Your task to perform on an android device: change your default location settings in chrome Image 0: 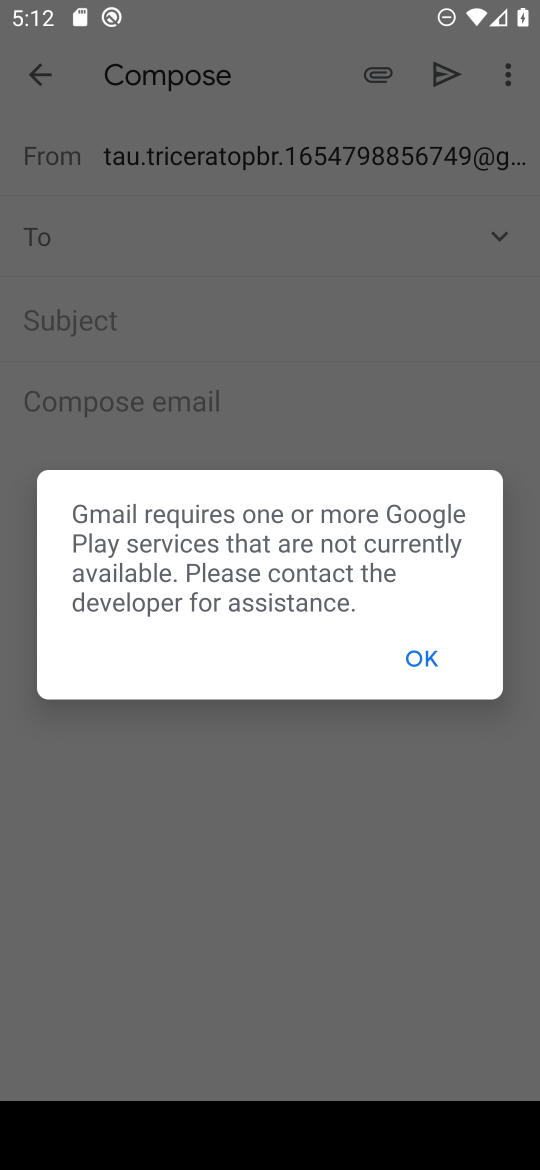
Step 0: press home button
Your task to perform on an android device: change your default location settings in chrome Image 1: 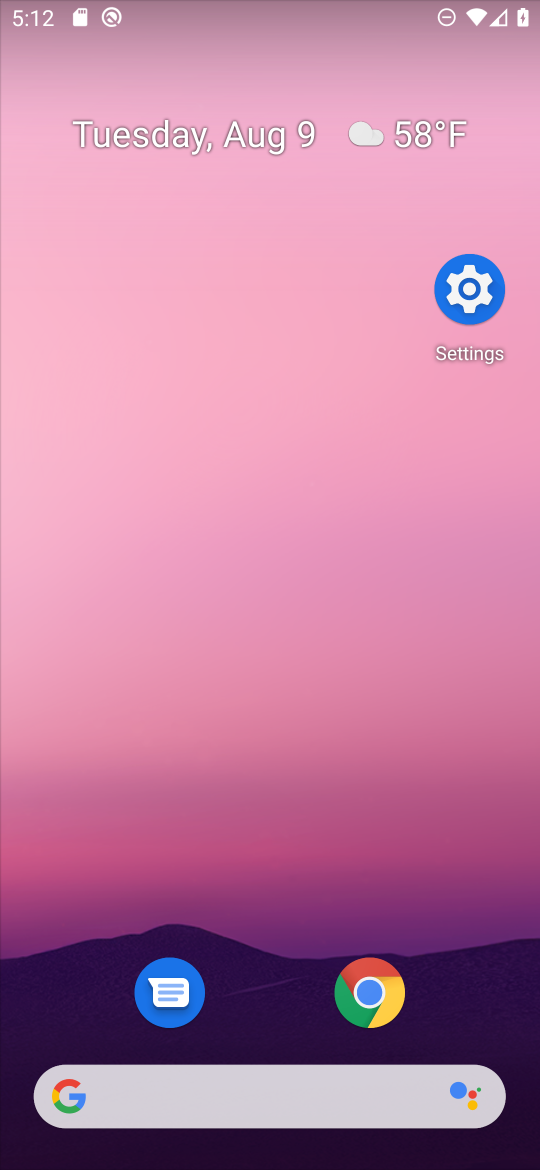
Step 1: drag from (217, 1081) to (52, 534)
Your task to perform on an android device: change your default location settings in chrome Image 2: 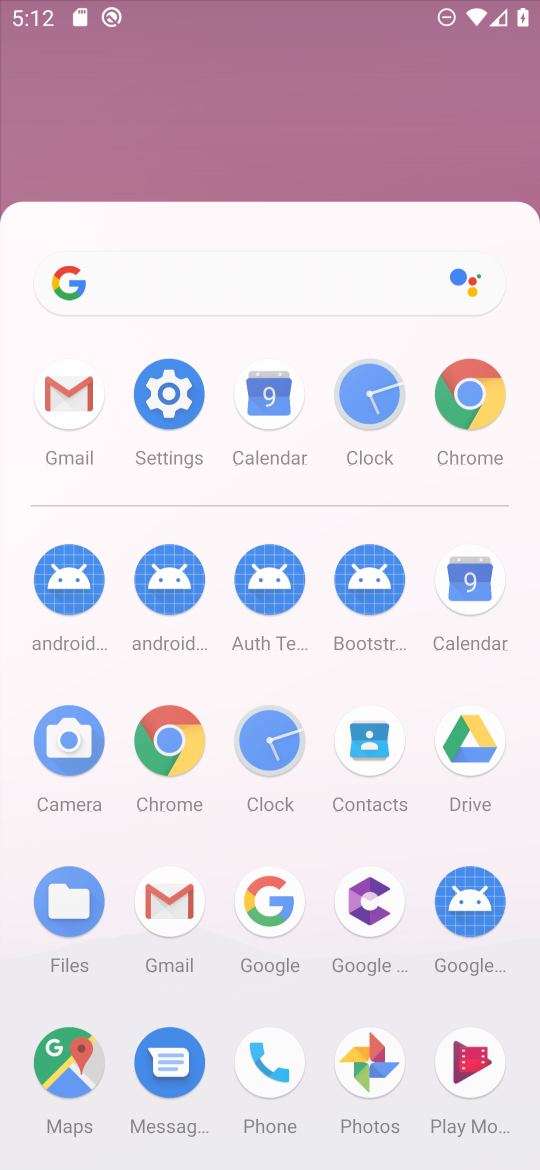
Step 2: click (158, 559)
Your task to perform on an android device: change your default location settings in chrome Image 3: 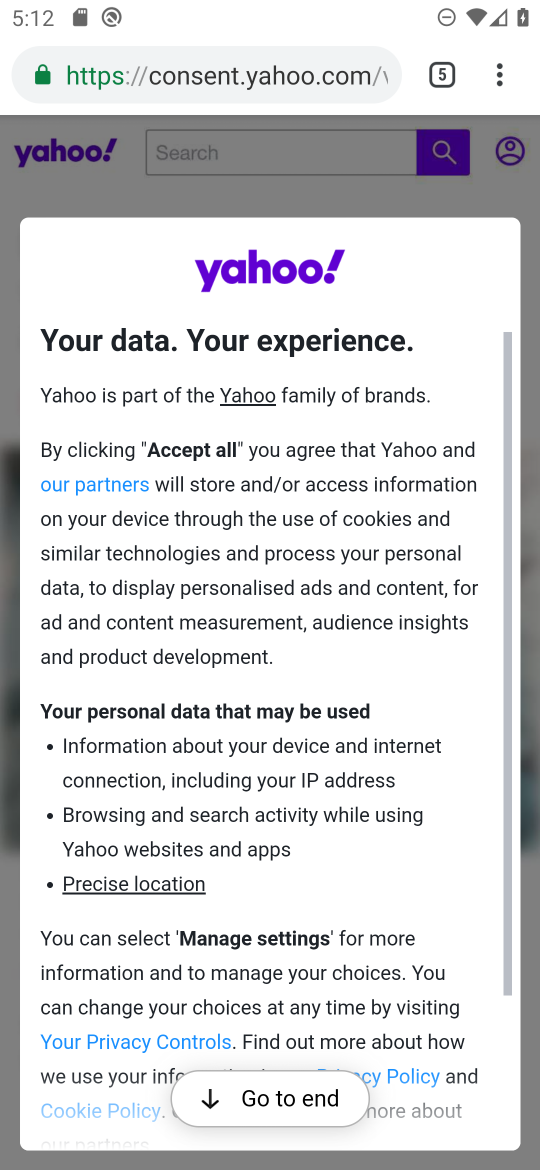
Step 3: click (500, 70)
Your task to perform on an android device: change your default location settings in chrome Image 4: 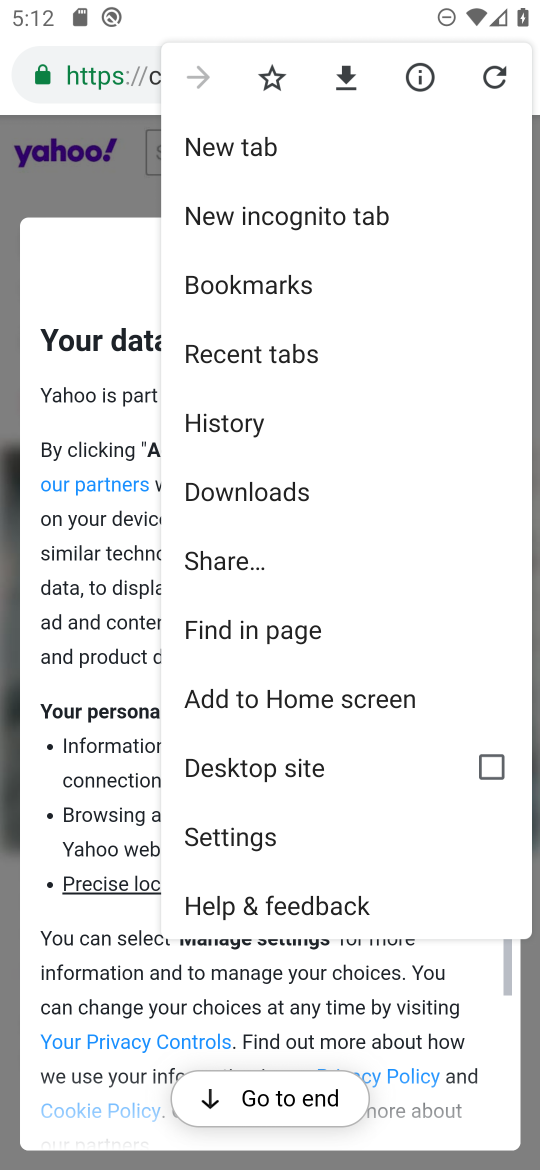
Step 4: click (243, 826)
Your task to perform on an android device: change your default location settings in chrome Image 5: 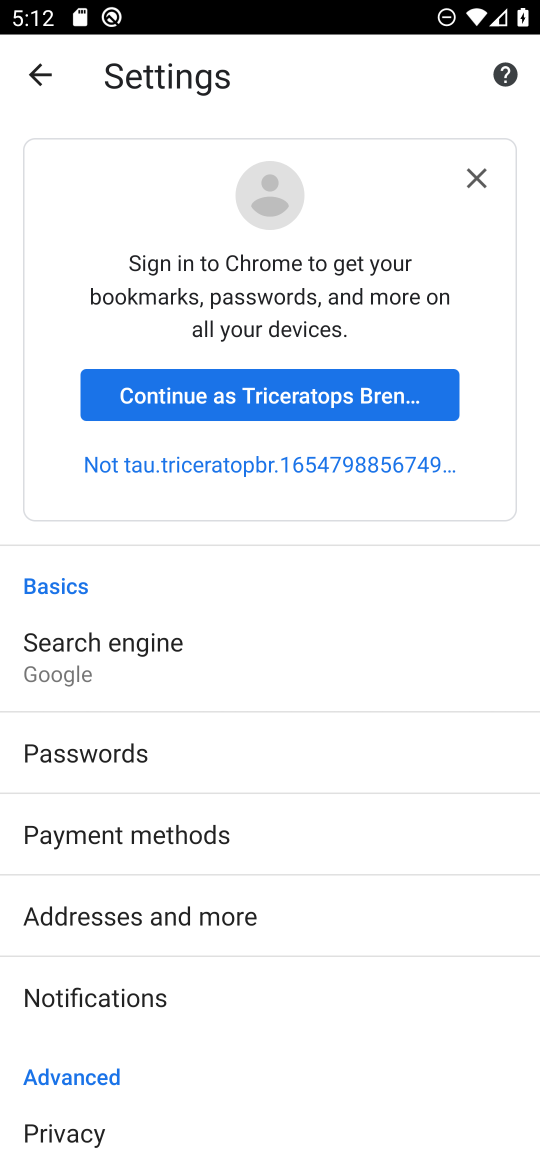
Step 5: drag from (278, 1055) to (316, 286)
Your task to perform on an android device: change your default location settings in chrome Image 6: 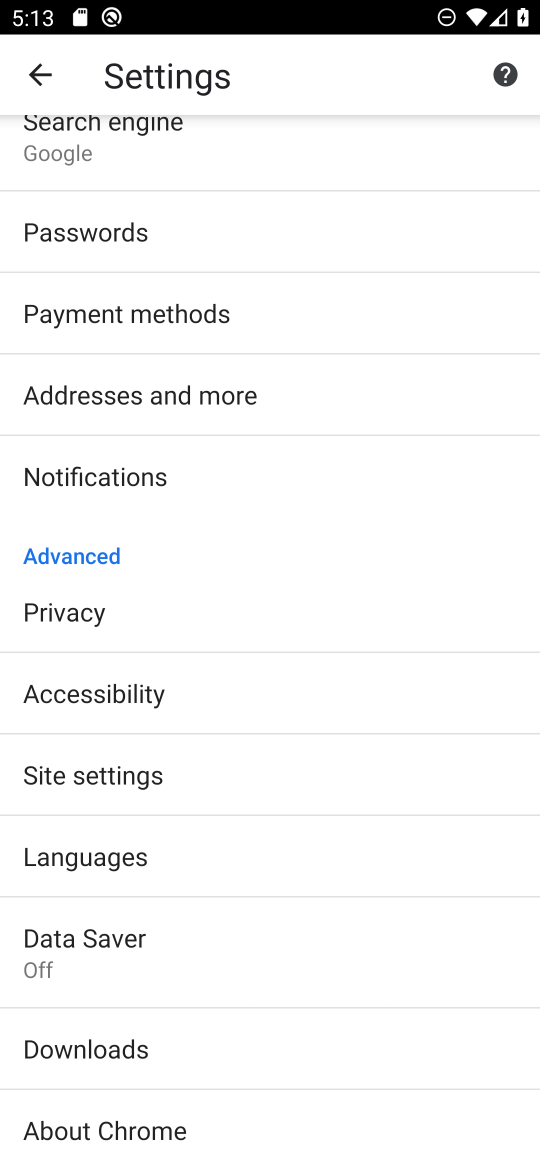
Step 6: click (156, 783)
Your task to perform on an android device: change your default location settings in chrome Image 7: 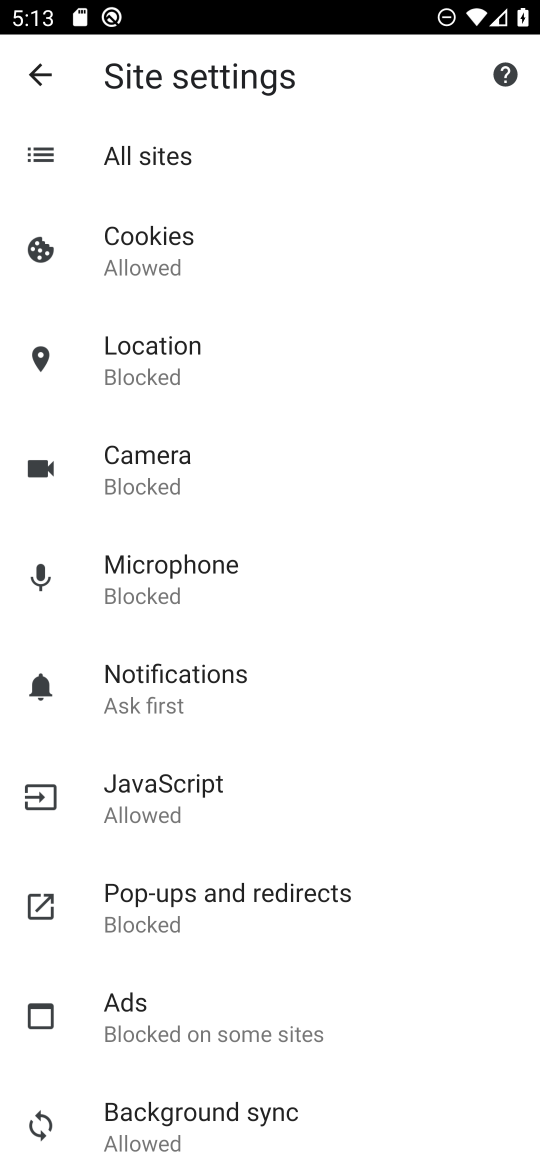
Step 7: click (187, 359)
Your task to perform on an android device: change your default location settings in chrome Image 8: 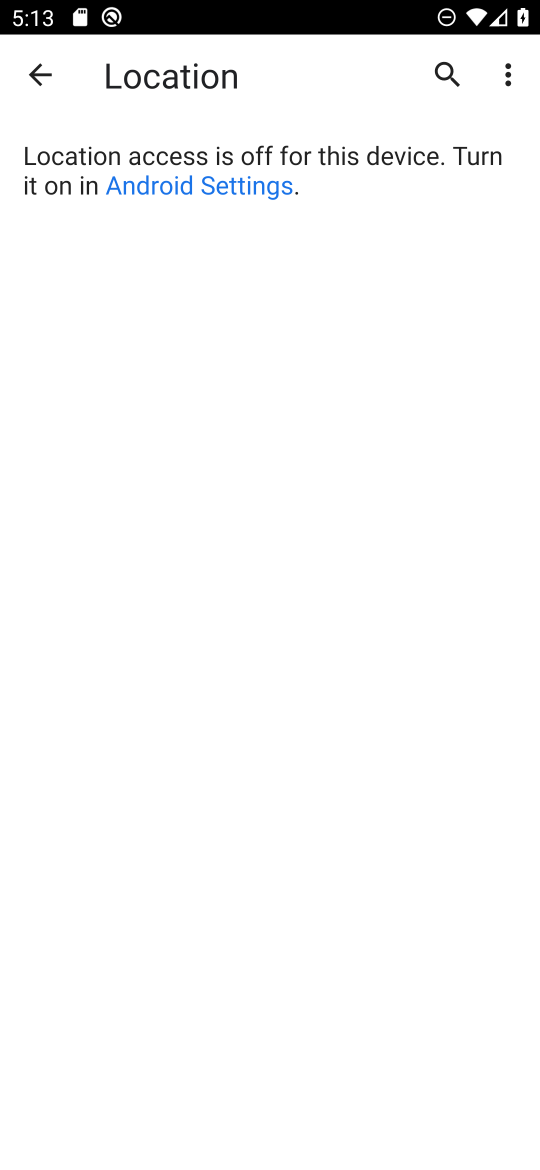
Step 8: task complete